Your task to perform on an android device: Open Google Chrome Image 0: 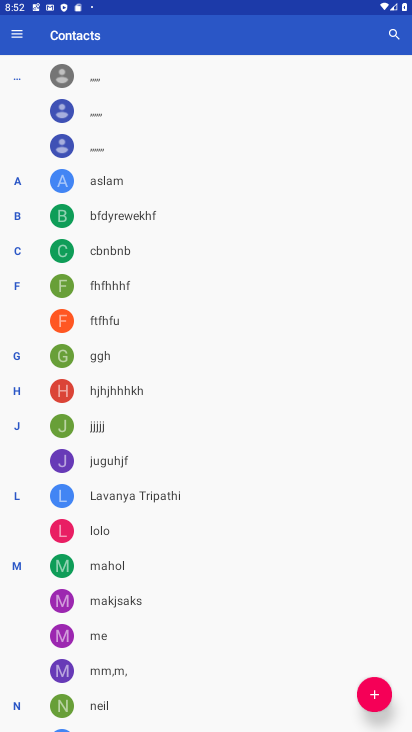
Step 0: press home button
Your task to perform on an android device: Open Google Chrome Image 1: 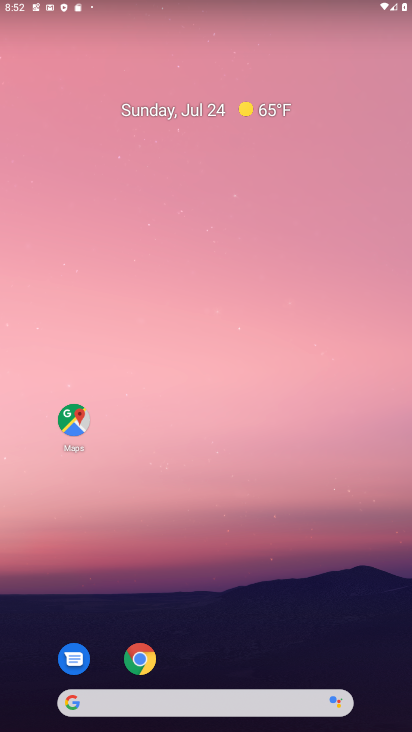
Step 1: click (145, 658)
Your task to perform on an android device: Open Google Chrome Image 2: 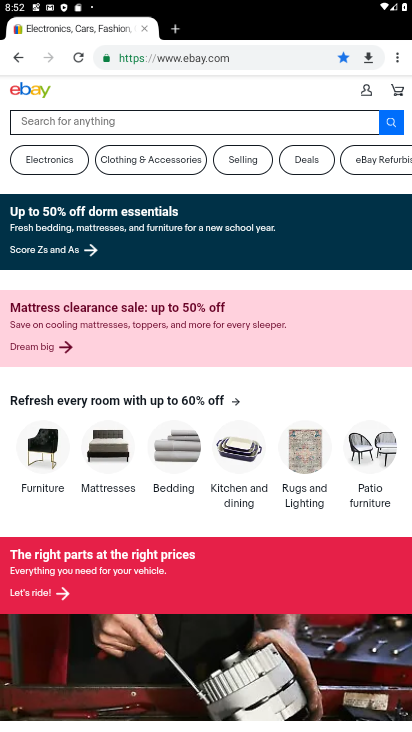
Step 2: task complete